Your task to perform on an android device: Do I have any events today? Image 0: 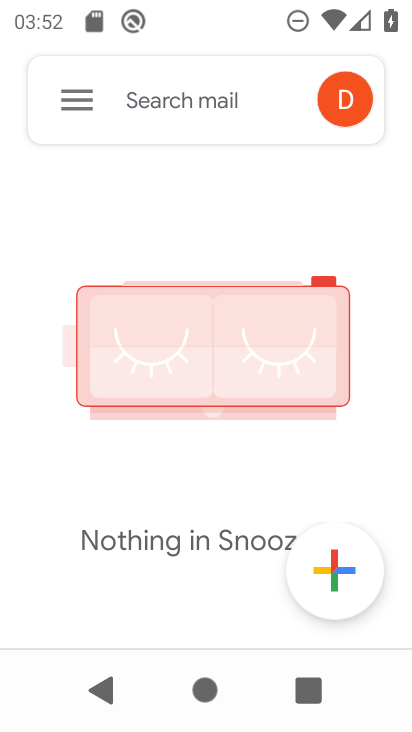
Step 0: drag from (201, 145) to (369, 191)
Your task to perform on an android device: Do I have any events today? Image 1: 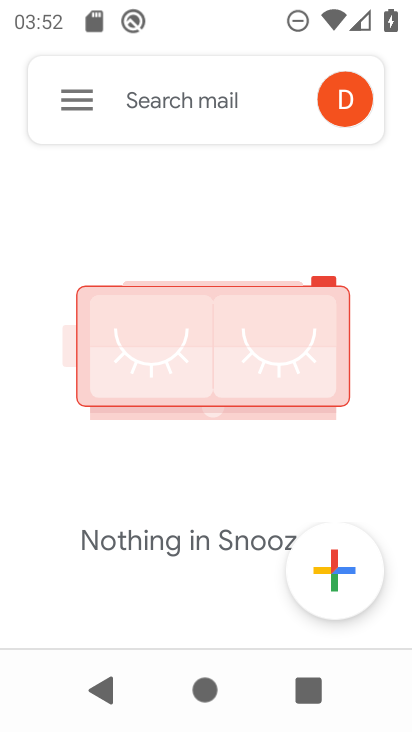
Step 1: press home button
Your task to perform on an android device: Do I have any events today? Image 2: 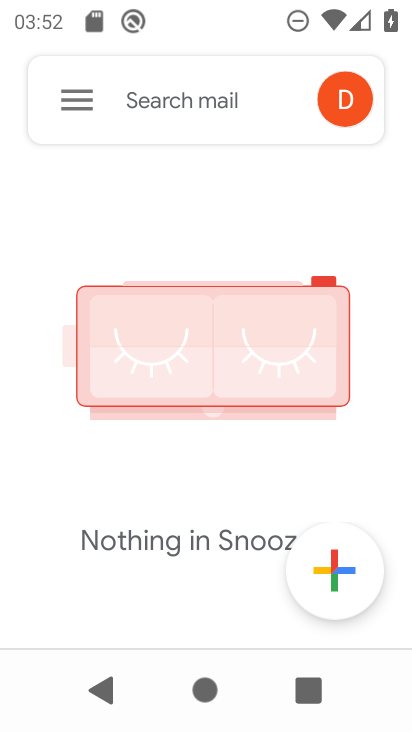
Step 2: drag from (369, 191) to (358, 399)
Your task to perform on an android device: Do I have any events today? Image 3: 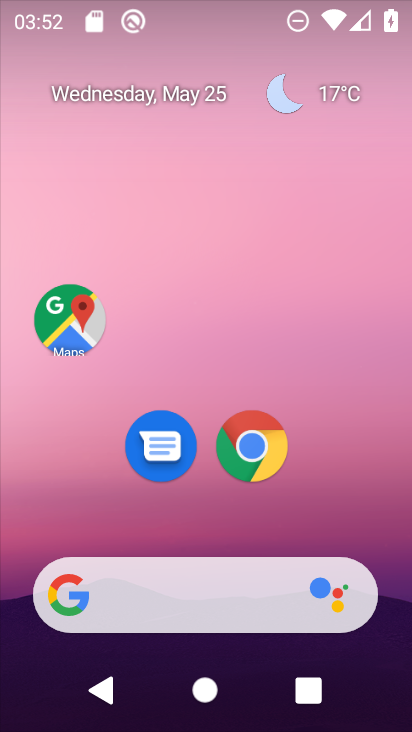
Step 3: drag from (159, 572) to (178, 147)
Your task to perform on an android device: Do I have any events today? Image 4: 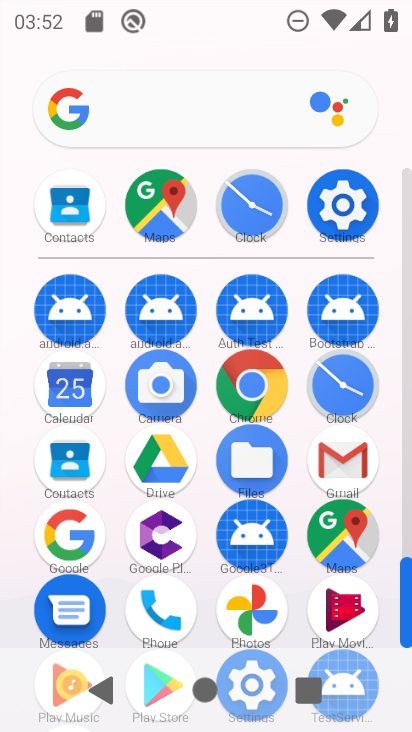
Step 4: click (67, 392)
Your task to perform on an android device: Do I have any events today? Image 5: 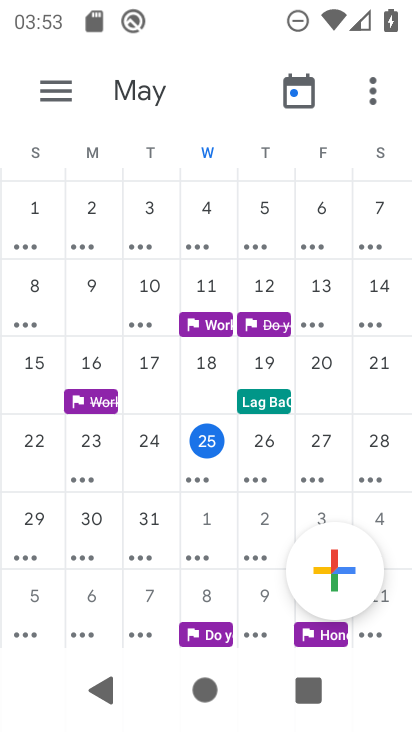
Step 5: click (39, 90)
Your task to perform on an android device: Do I have any events today? Image 6: 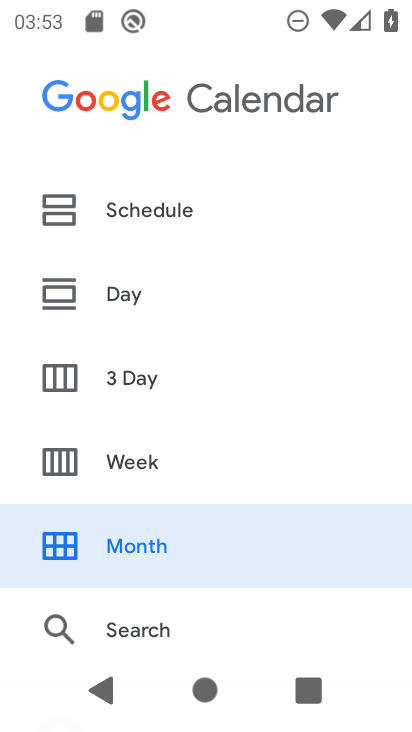
Step 6: click (121, 203)
Your task to perform on an android device: Do I have any events today? Image 7: 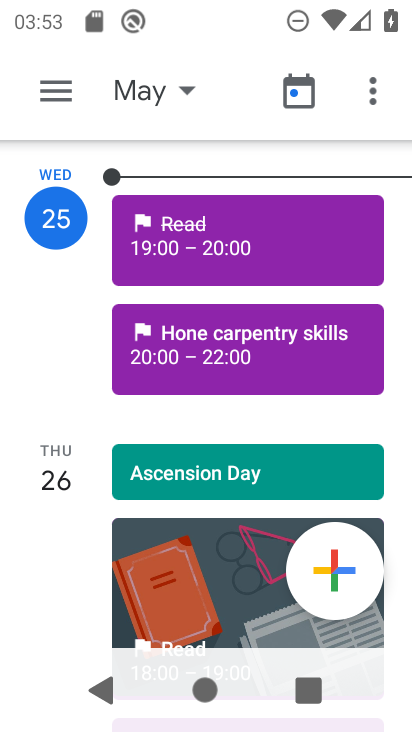
Step 7: task complete